Your task to perform on an android device: Go to Reddit.com Image 0: 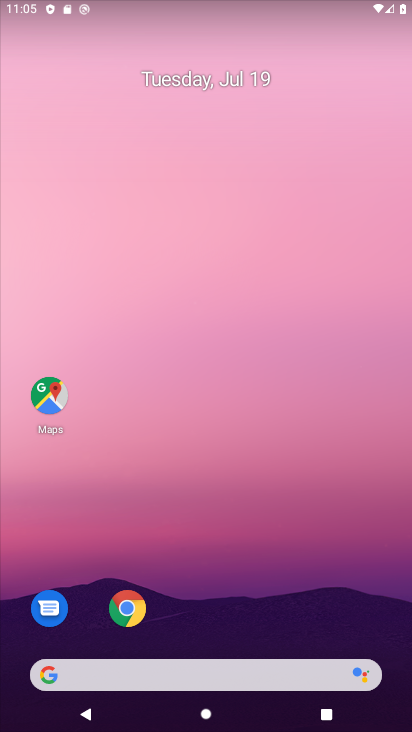
Step 0: press home button
Your task to perform on an android device: Go to Reddit.com Image 1: 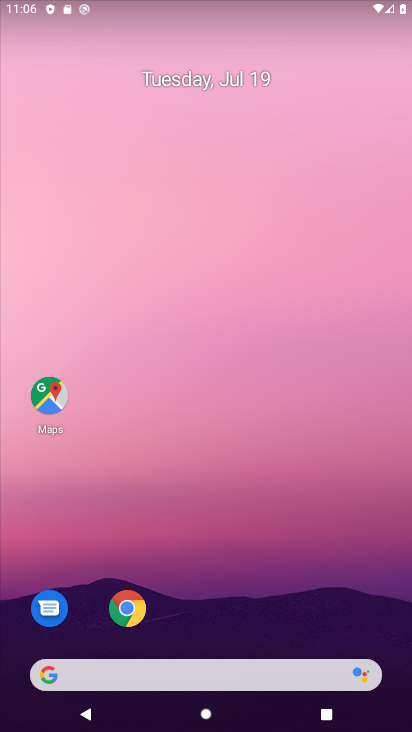
Step 1: click (48, 685)
Your task to perform on an android device: Go to Reddit.com Image 2: 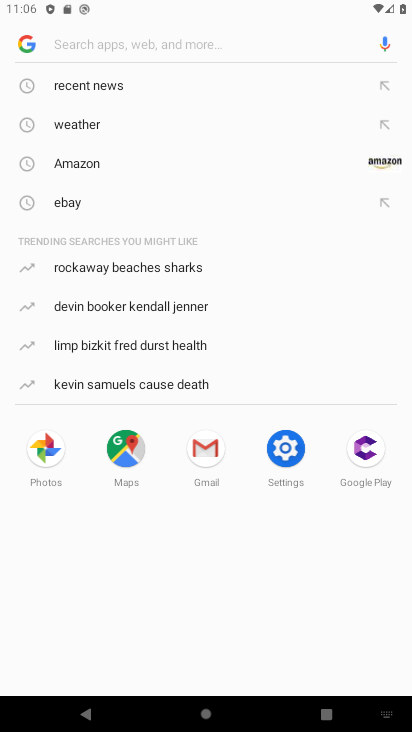
Step 2: type "Reddit.com"
Your task to perform on an android device: Go to Reddit.com Image 3: 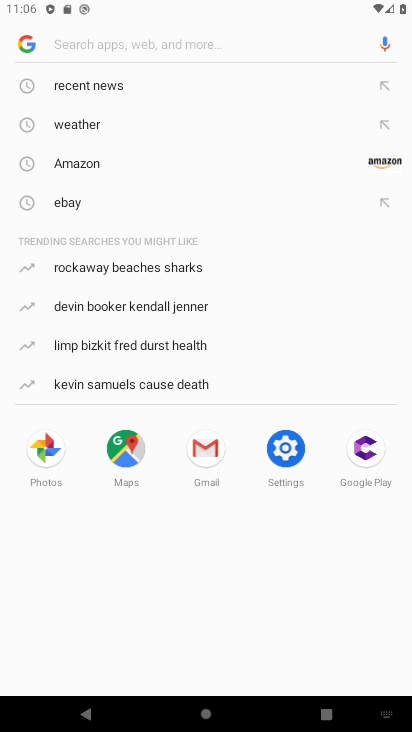
Step 3: click (140, 42)
Your task to perform on an android device: Go to Reddit.com Image 4: 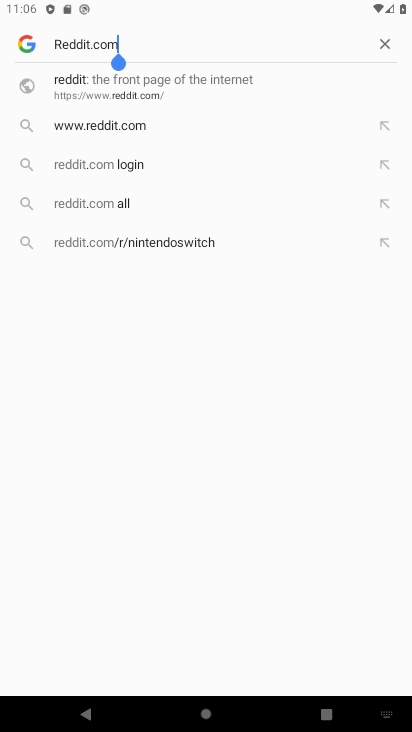
Step 4: press enter
Your task to perform on an android device: Go to Reddit.com Image 5: 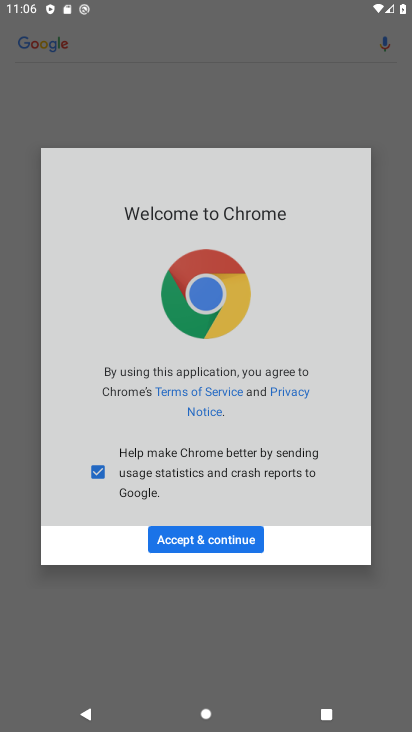
Step 5: click (190, 540)
Your task to perform on an android device: Go to Reddit.com Image 6: 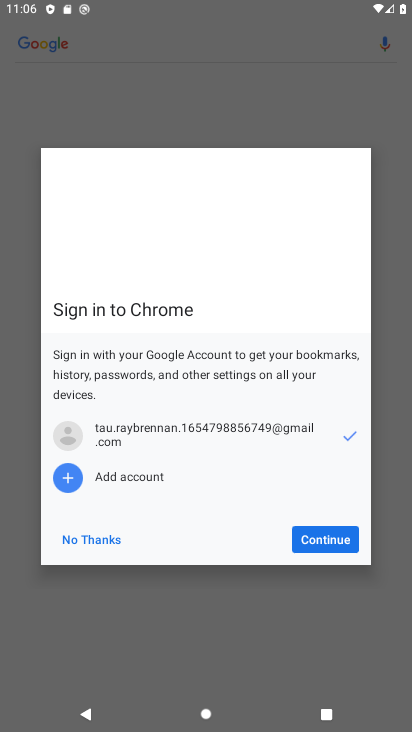
Step 6: click (302, 533)
Your task to perform on an android device: Go to Reddit.com Image 7: 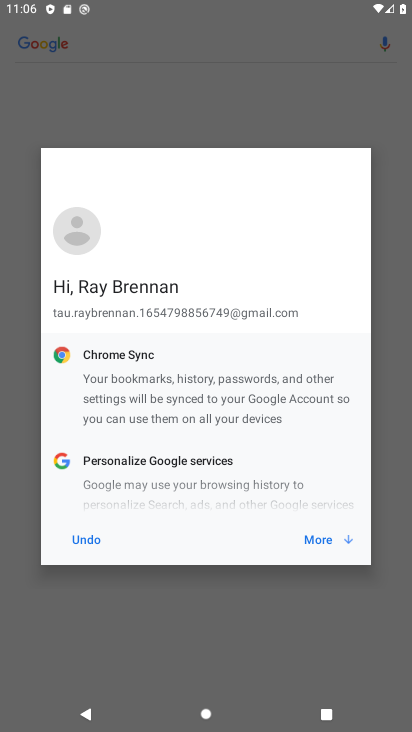
Step 7: click (325, 538)
Your task to perform on an android device: Go to Reddit.com Image 8: 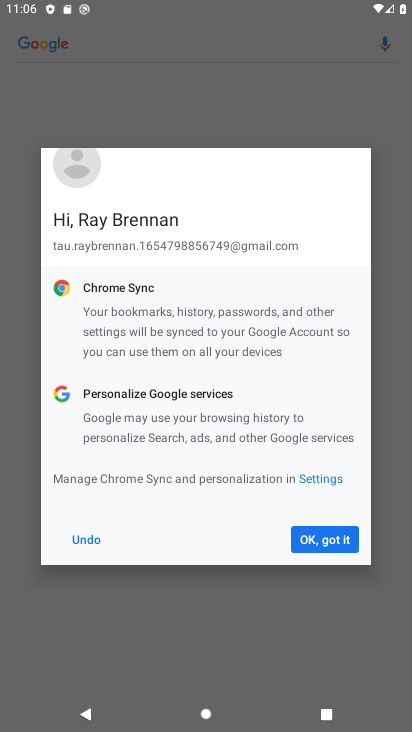
Step 8: click (325, 538)
Your task to perform on an android device: Go to Reddit.com Image 9: 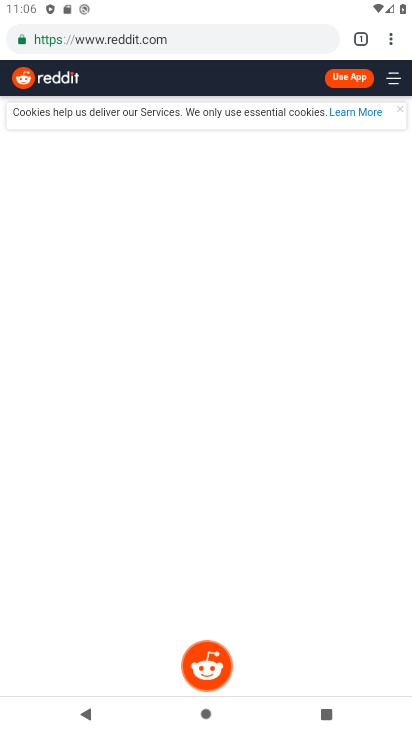
Step 9: task complete